Your task to perform on an android device: turn vacation reply on in the gmail app Image 0: 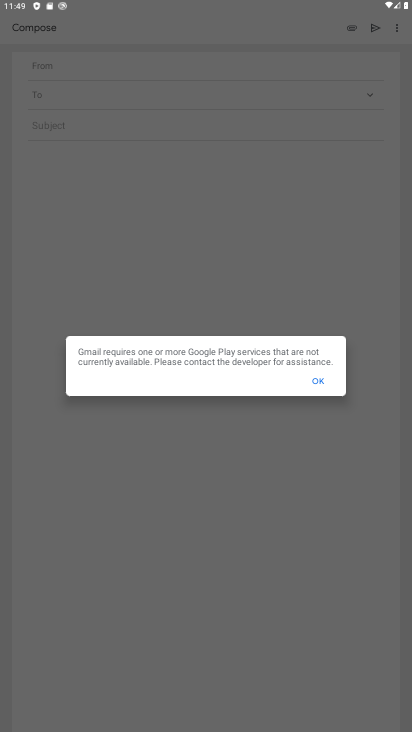
Step 0: drag from (260, 727) to (280, 214)
Your task to perform on an android device: turn vacation reply on in the gmail app Image 1: 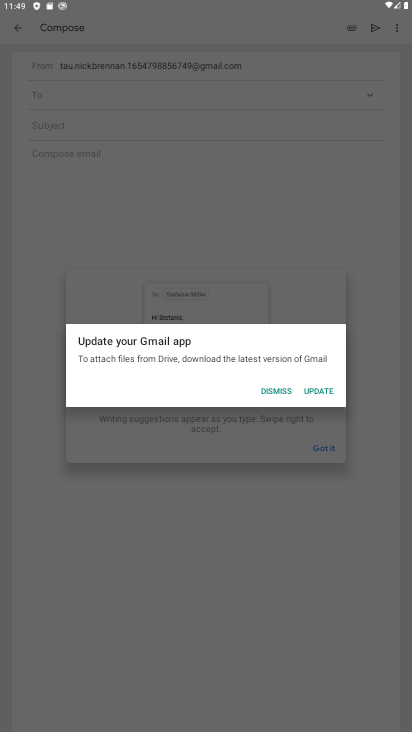
Step 1: click (285, 396)
Your task to perform on an android device: turn vacation reply on in the gmail app Image 2: 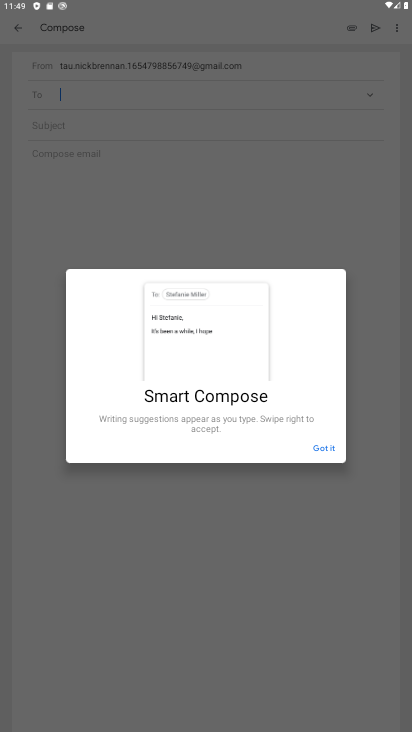
Step 2: click (336, 443)
Your task to perform on an android device: turn vacation reply on in the gmail app Image 3: 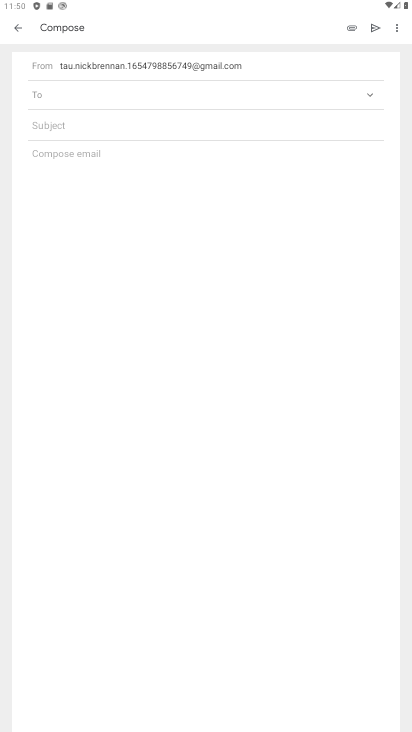
Step 3: click (14, 28)
Your task to perform on an android device: turn vacation reply on in the gmail app Image 4: 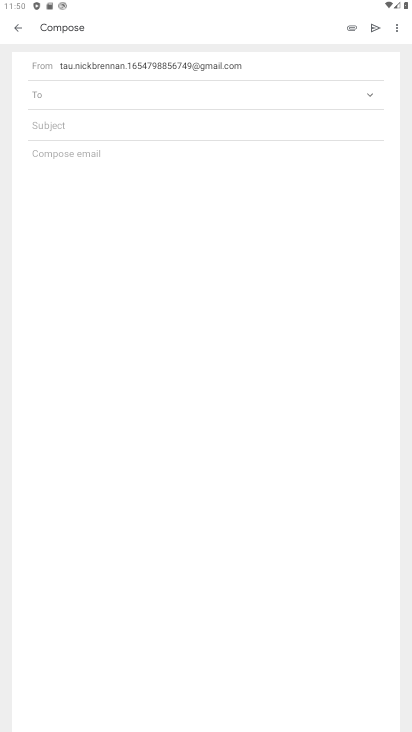
Step 4: click (9, 29)
Your task to perform on an android device: turn vacation reply on in the gmail app Image 5: 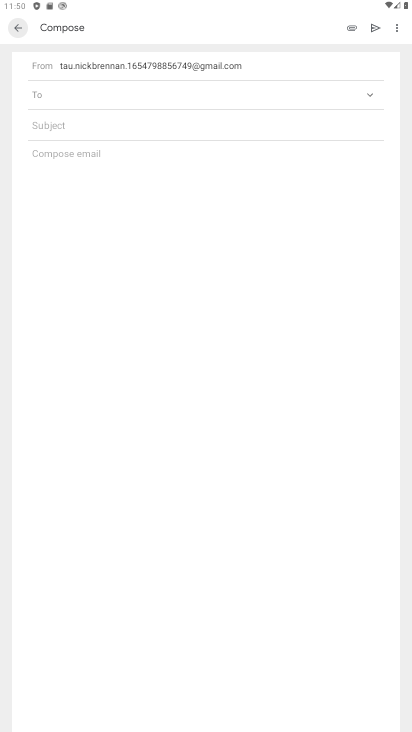
Step 5: click (0, 38)
Your task to perform on an android device: turn vacation reply on in the gmail app Image 6: 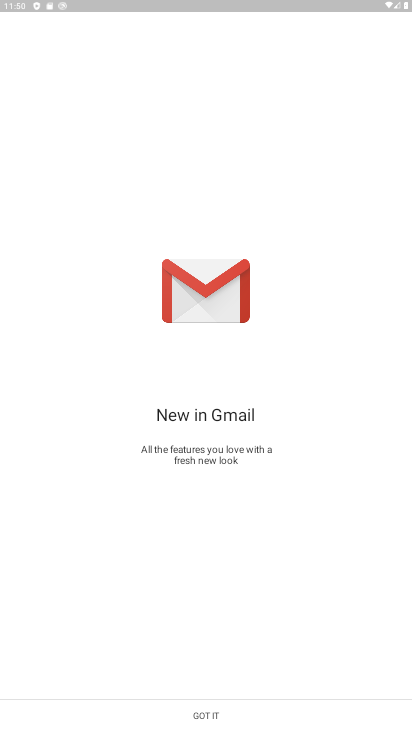
Step 6: click (216, 705)
Your task to perform on an android device: turn vacation reply on in the gmail app Image 7: 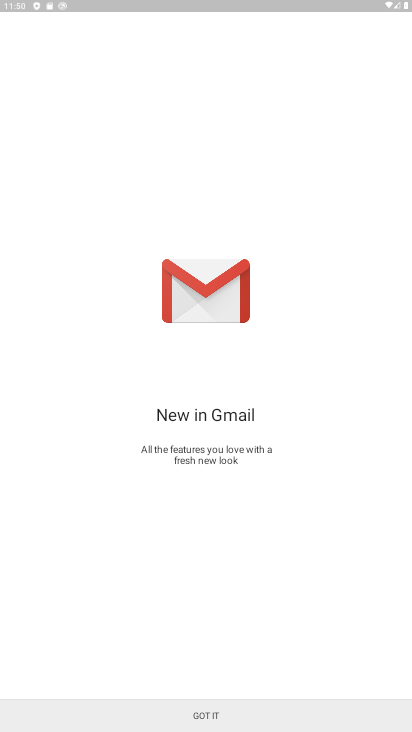
Step 7: click (217, 706)
Your task to perform on an android device: turn vacation reply on in the gmail app Image 8: 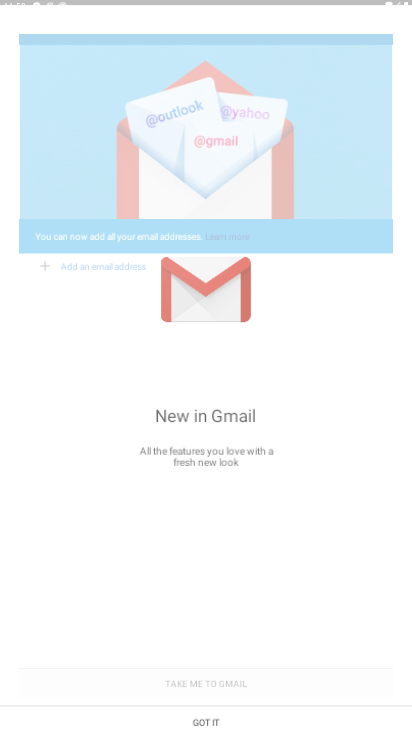
Step 8: click (217, 706)
Your task to perform on an android device: turn vacation reply on in the gmail app Image 9: 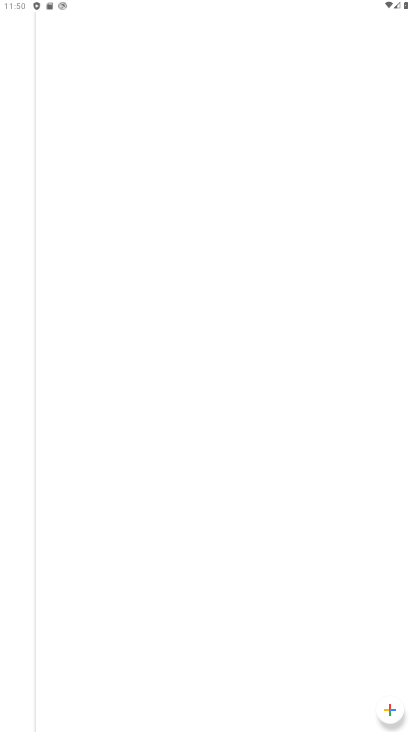
Step 9: click (218, 713)
Your task to perform on an android device: turn vacation reply on in the gmail app Image 10: 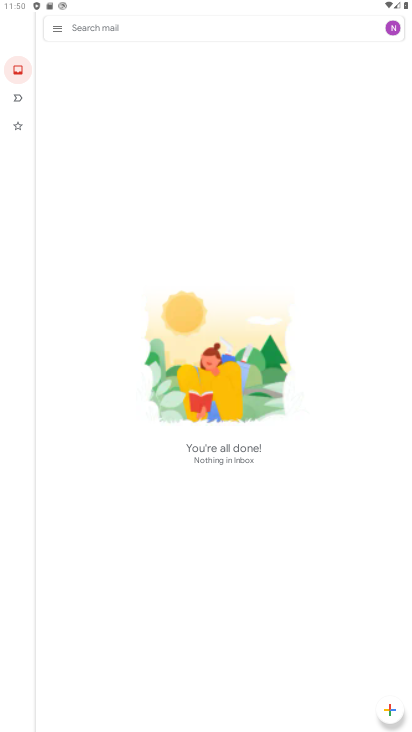
Step 10: click (41, 29)
Your task to perform on an android device: turn vacation reply on in the gmail app Image 11: 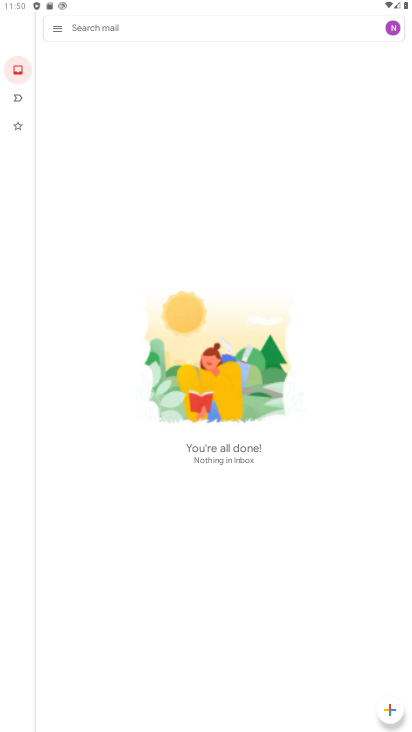
Step 11: click (49, 26)
Your task to perform on an android device: turn vacation reply on in the gmail app Image 12: 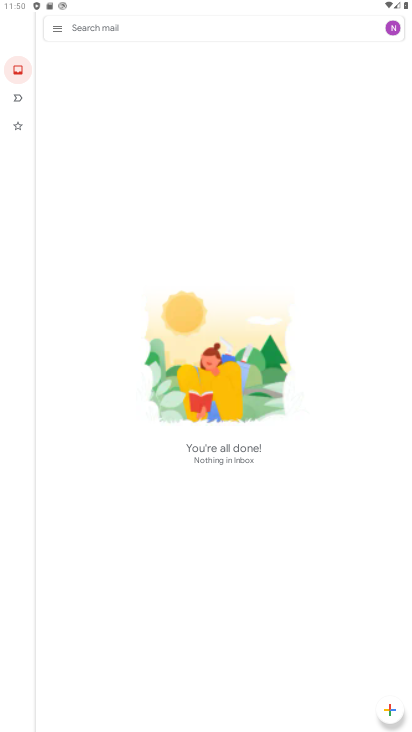
Step 12: click (56, 21)
Your task to perform on an android device: turn vacation reply on in the gmail app Image 13: 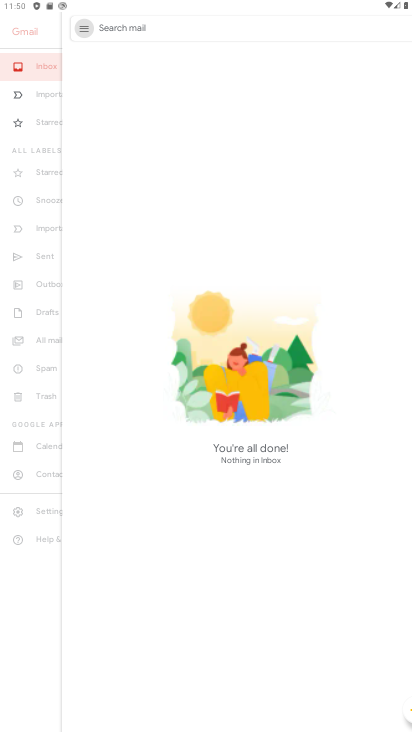
Step 13: click (56, 22)
Your task to perform on an android device: turn vacation reply on in the gmail app Image 14: 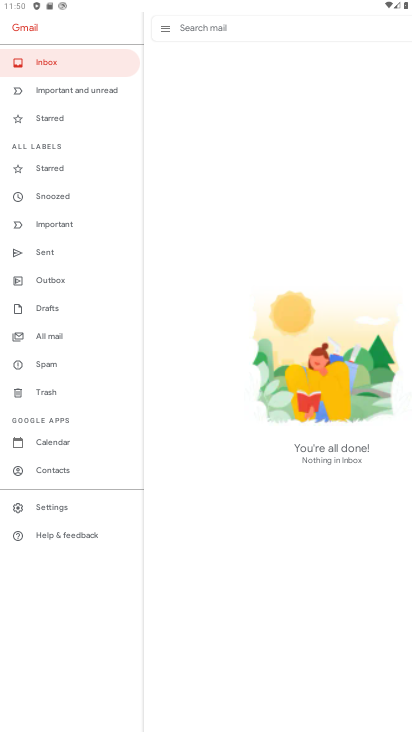
Step 14: click (56, 29)
Your task to perform on an android device: turn vacation reply on in the gmail app Image 15: 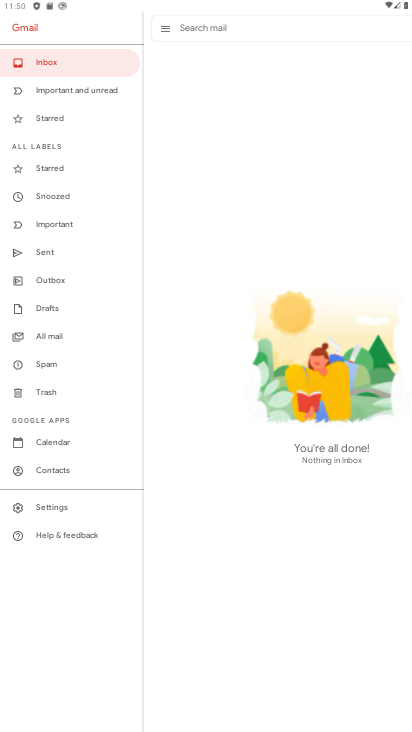
Step 15: click (52, 335)
Your task to perform on an android device: turn vacation reply on in the gmail app Image 16: 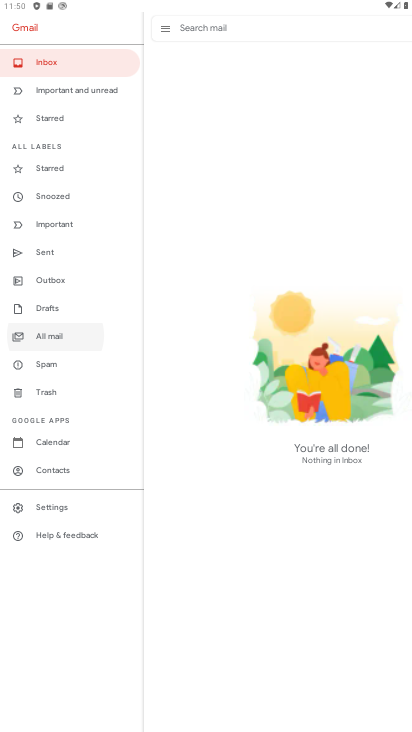
Step 16: click (53, 334)
Your task to perform on an android device: turn vacation reply on in the gmail app Image 17: 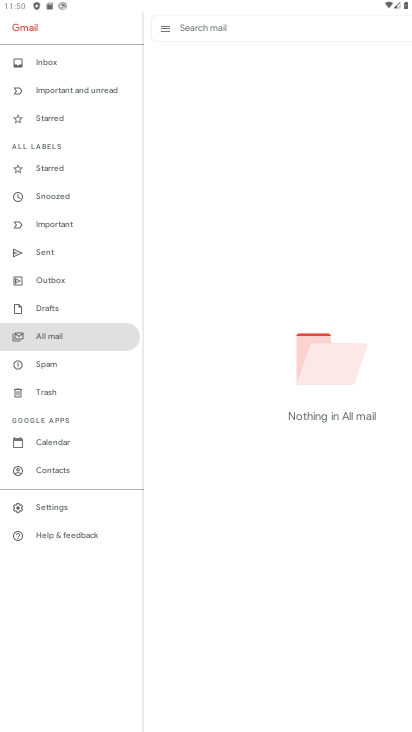
Step 17: click (42, 504)
Your task to perform on an android device: turn vacation reply on in the gmail app Image 18: 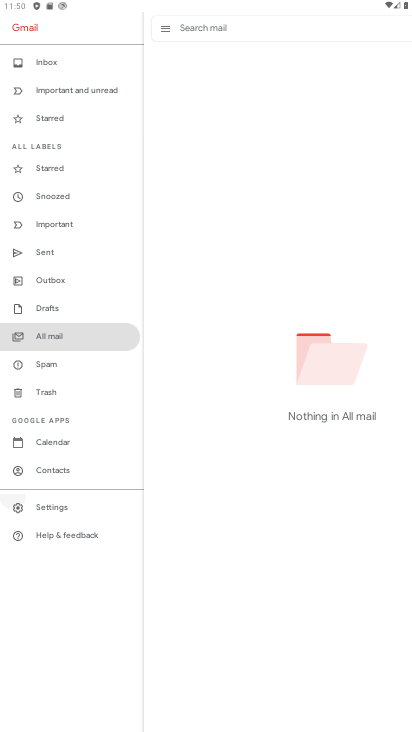
Step 18: click (46, 501)
Your task to perform on an android device: turn vacation reply on in the gmail app Image 19: 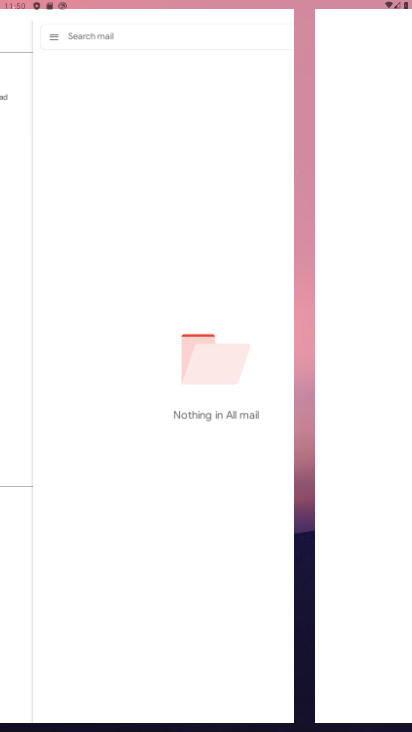
Step 19: click (50, 500)
Your task to perform on an android device: turn vacation reply on in the gmail app Image 20: 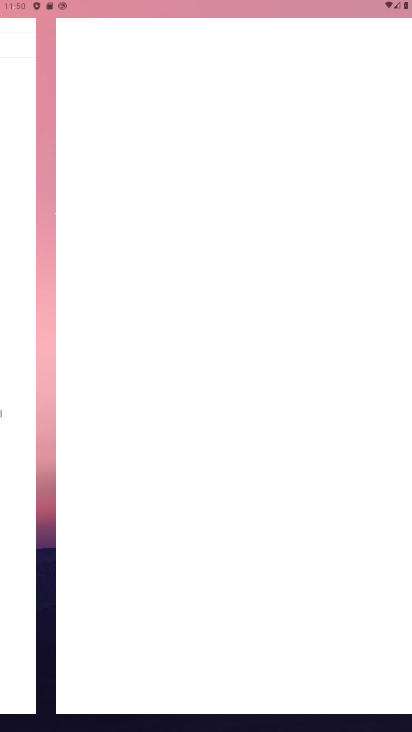
Step 20: click (48, 501)
Your task to perform on an android device: turn vacation reply on in the gmail app Image 21: 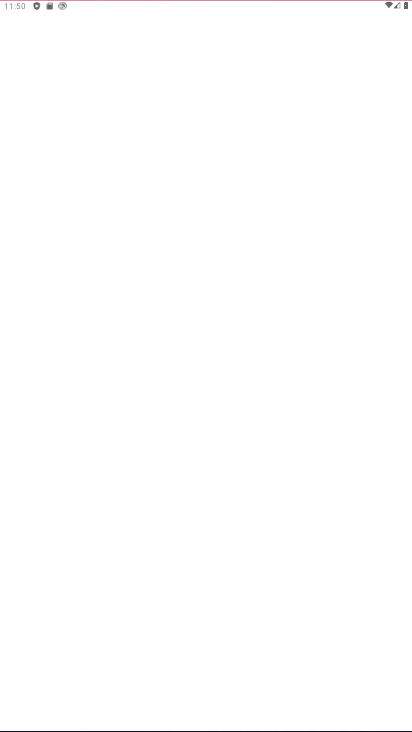
Step 21: click (48, 501)
Your task to perform on an android device: turn vacation reply on in the gmail app Image 22: 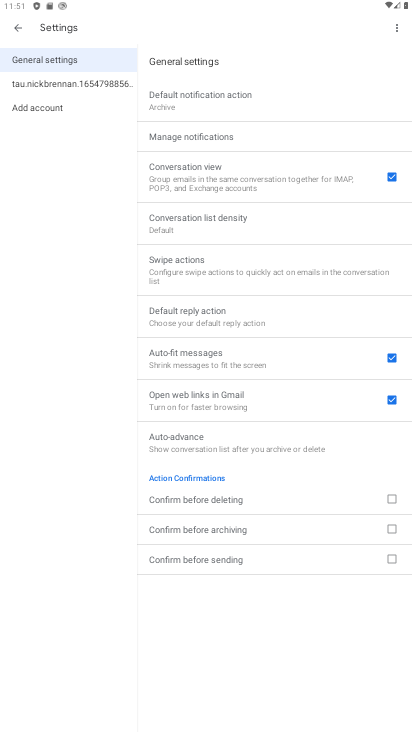
Step 22: click (75, 84)
Your task to perform on an android device: turn vacation reply on in the gmail app Image 23: 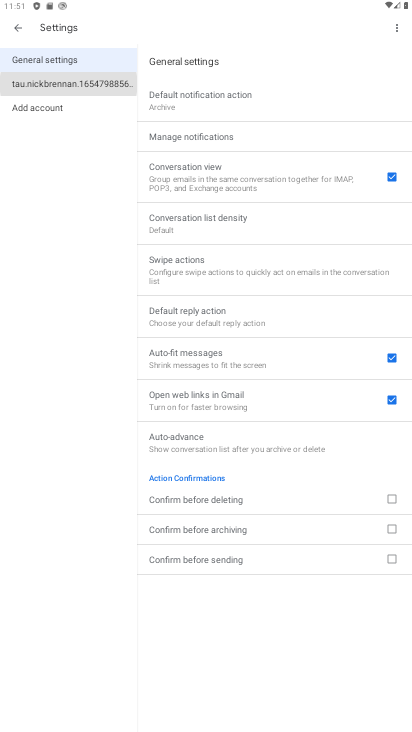
Step 23: click (77, 79)
Your task to perform on an android device: turn vacation reply on in the gmail app Image 24: 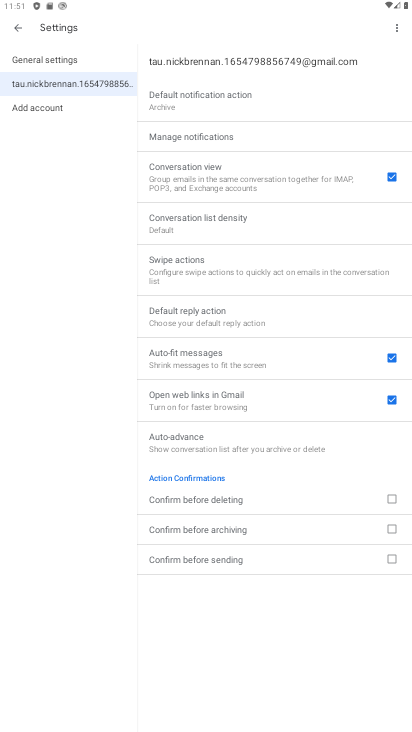
Step 24: click (78, 80)
Your task to perform on an android device: turn vacation reply on in the gmail app Image 25: 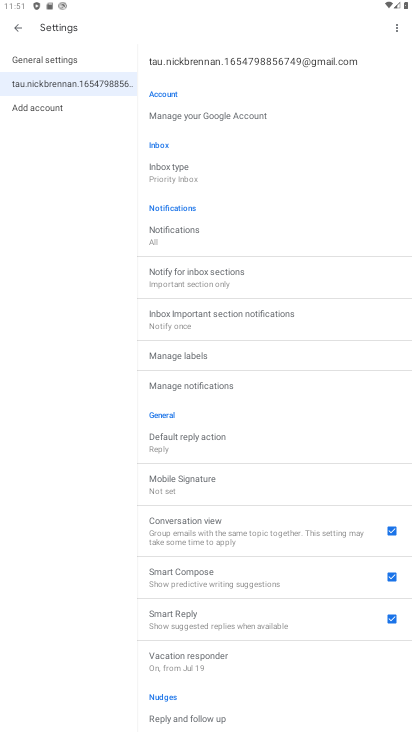
Step 25: drag from (199, 556) to (171, 45)
Your task to perform on an android device: turn vacation reply on in the gmail app Image 26: 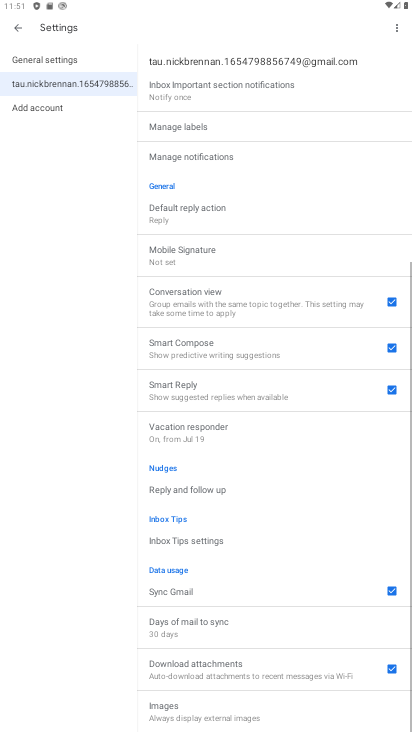
Step 26: drag from (221, 419) to (244, 127)
Your task to perform on an android device: turn vacation reply on in the gmail app Image 27: 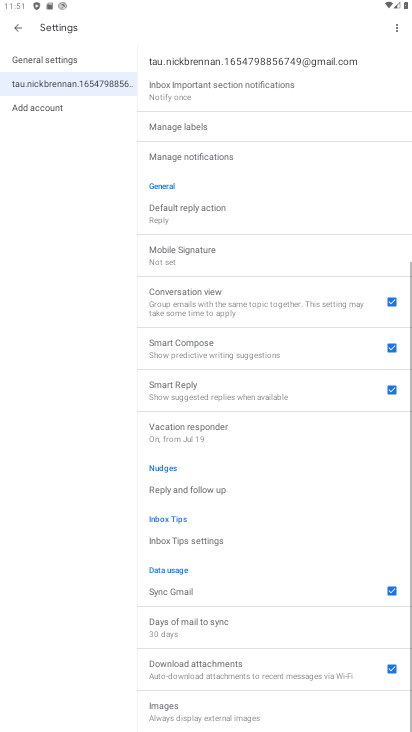
Step 27: drag from (261, 519) to (269, 165)
Your task to perform on an android device: turn vacation reply on in the gmail app Image 28: 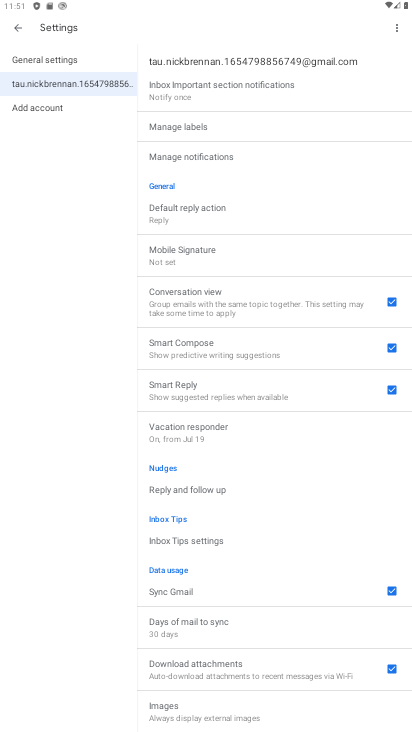
Step 28: click (317, 271)
Your task to perform on an android device: turn vacation reply on in the gmail app Image 29: 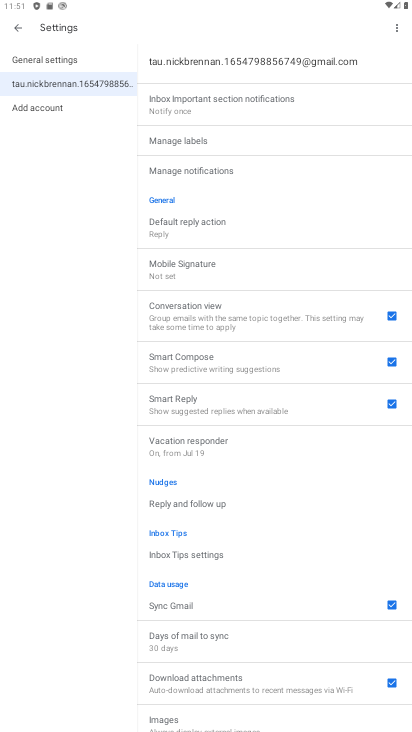
Step 29: click (185, 438)
Your task to perform on an android device: turn vacation reply on in the gmail app Image 30: 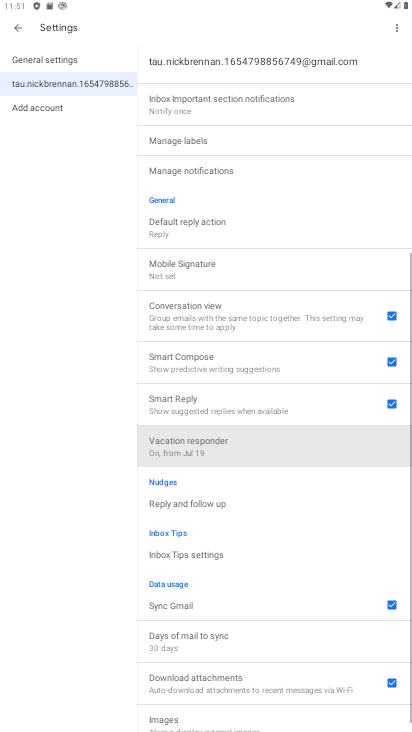
Step 30: click (183, 439)
Your task to perform on an android device: turn vacation reply on in the gmail app Image 31: 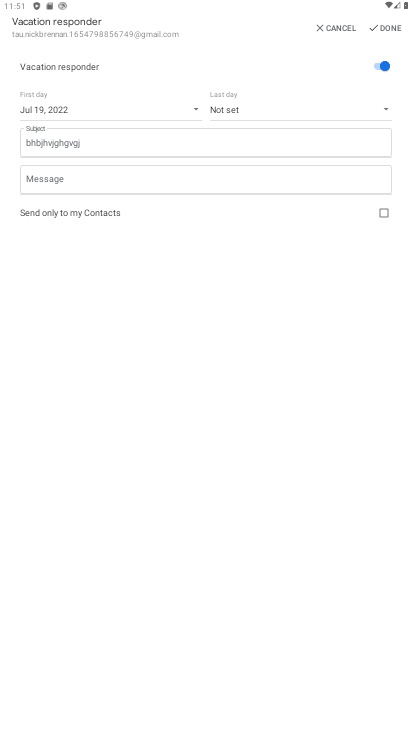
Step 31: click (388, 212)
Your task to perform on an android device: turn vacation reply on in the gmail app Image 32: 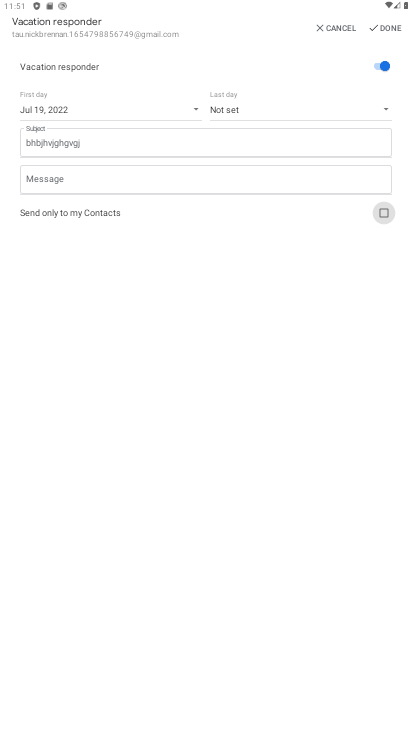
Step 32: task complete